Your task to perform on an android device: turn off smart reply in the gmail app Image 0: 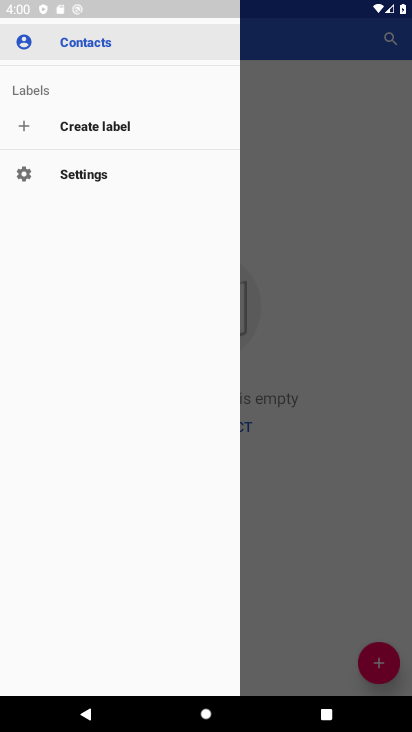
Step 0: press home button
Your task to perform on an android device: turn off smart reply in the gmail app Image 1: 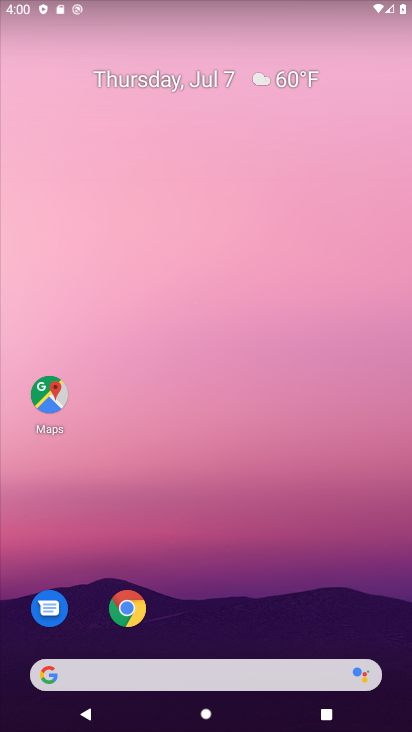
Step 1: drag from (323, 546) to (363, 83)
Your task to perform on an android device: turn off smart reply in the gmail app Image 2: 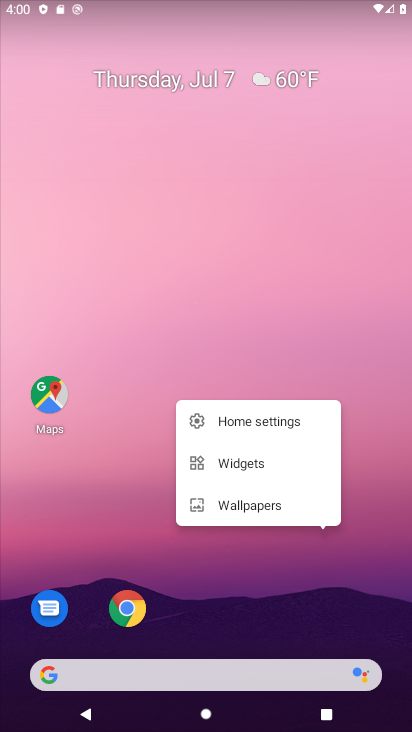
Step 2: drag from (380, 549) to (385, 155)
Your task to perform on an android device: turn off smart reply in the gmail app Image 3: 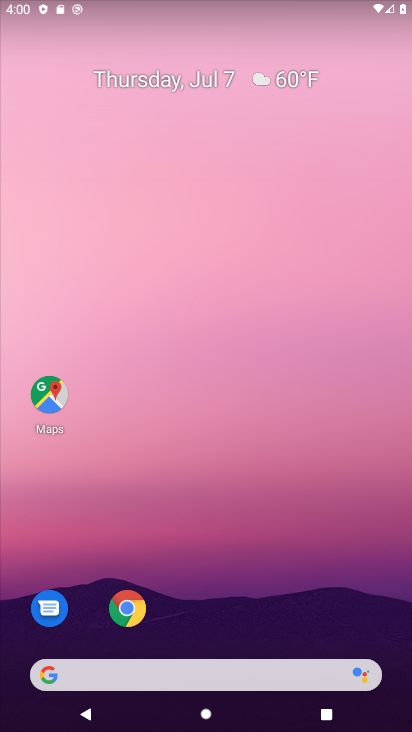
Step 3: drag from (341, 582) to (400, 145)
Your task to perform on an android device: turn off smart reply in the gmail app Image 4: 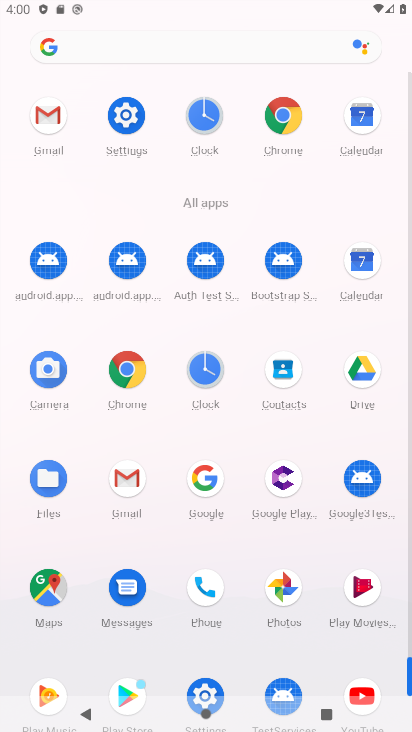
Step 4: click (131, 119)
Your task to perform on an android device: turn off smart reply in the gmail app Image 5: 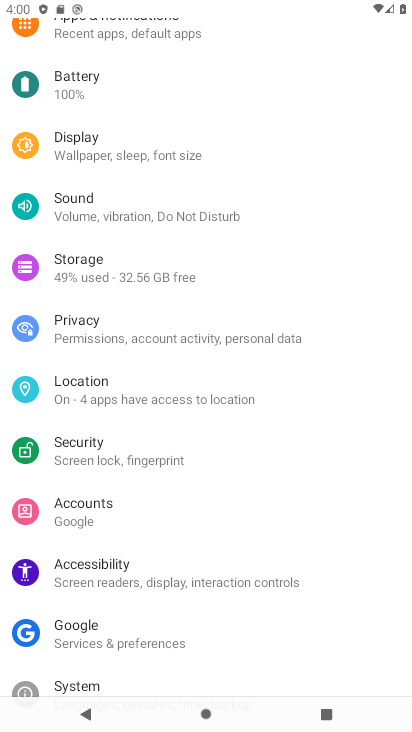
Step 5: press home button
Your task to perform on an android device: turn off smart reply in the gmail app Image 6: 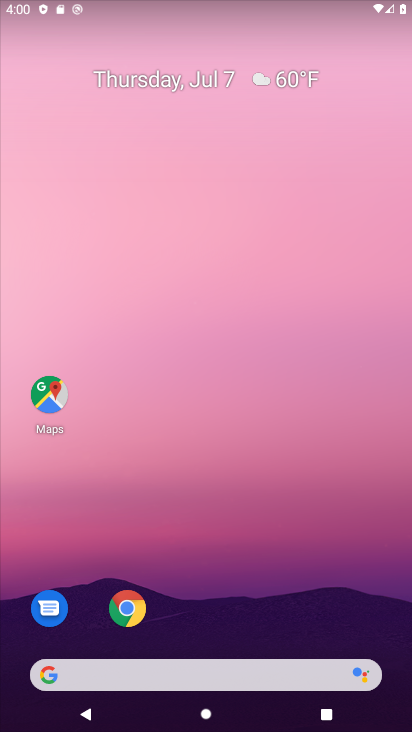
Step 6: drag from (361, 580) to (406, 0)
Your task to perform on an android device: turn off smart reply in the gmail app Image 7: 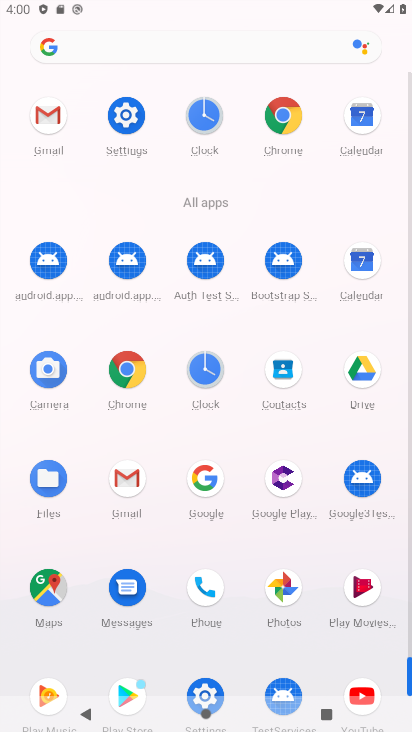
Step 7: click (126, 484)
Your task to perform on an android device: turn off smart reply in the gmail app Image 8: 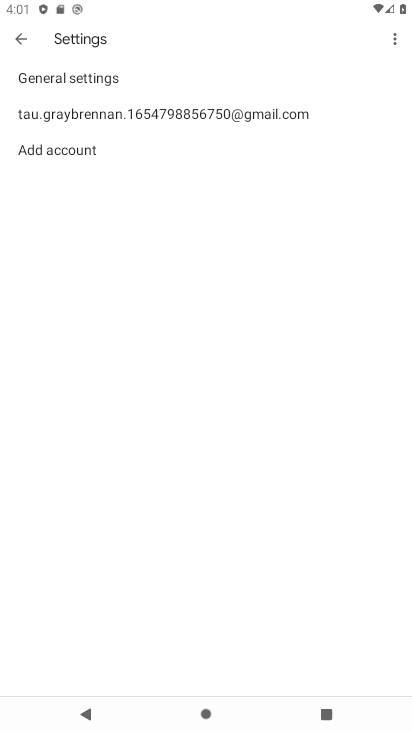
Step 8: click (101, 113)
Your task to perform on an android device: turn off smart reply in the gmail app Image 9: 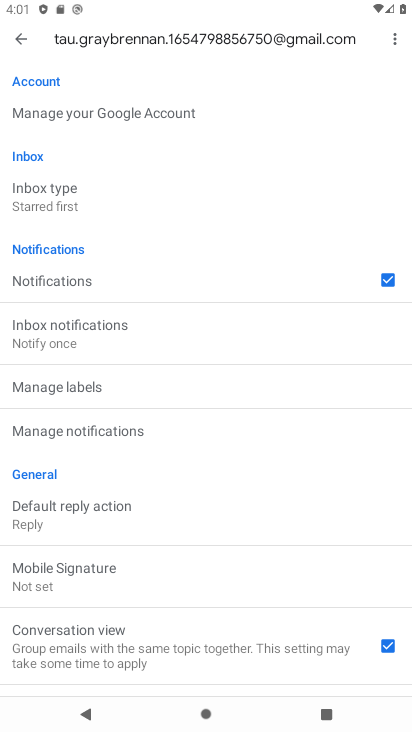
Step 9: drag from (82, 518) to (149, 175)
Your task to perform on an android device: turn off smart reply in the gmail app Image 10: 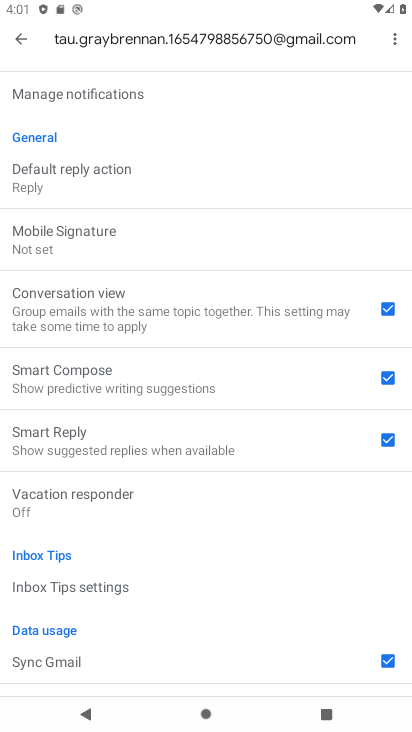
Step 10: drag from (339, 555) to (374, 186)
Your task to perform on an android device: turn off smart reply in the gmail app Image 11: 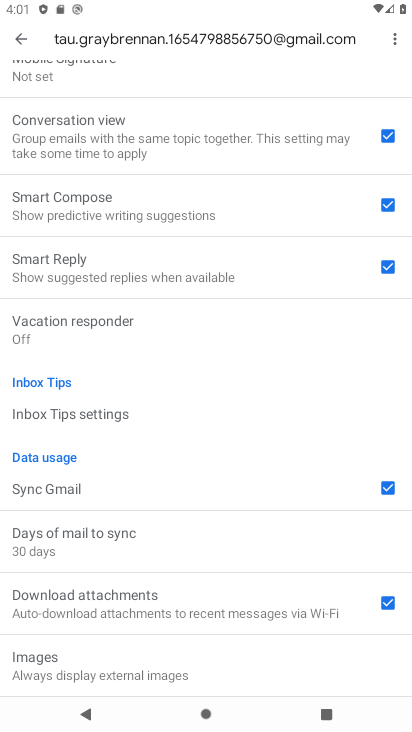
Step 11: drag from (286, 526) to (301, 421)
Your task to perform on an android device: turn off smart reply in the gmail app Image 12: 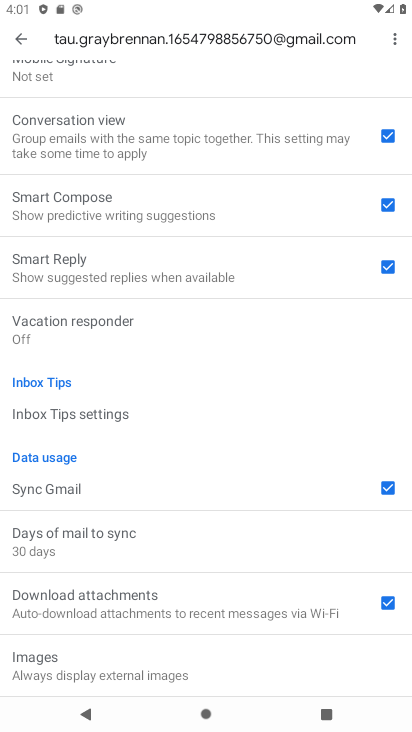
Step 12: drag from (245, 605) to (254, 398)
Your task to perform on an android device: turn off smart reply in the gmail app Image 13: 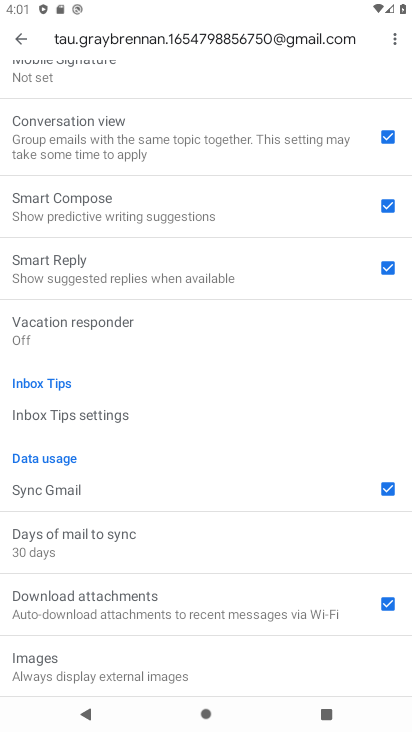
Step 13: click (382, 267)
Your task to perform on an android device: turn off smart reply in the gmail app Image 14: 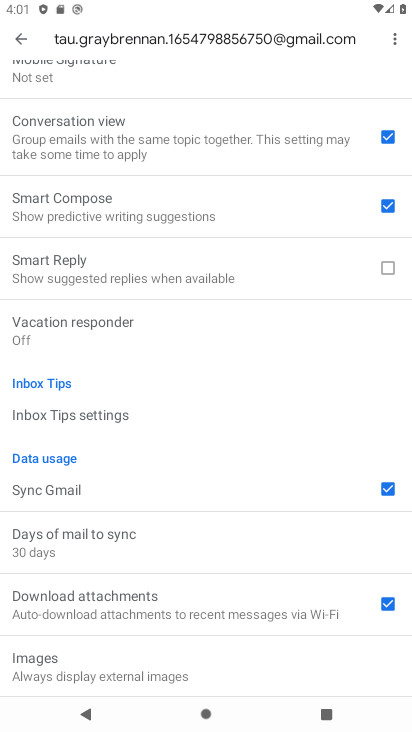
Step 14: task complete